Your task to perform on an android device: turn on translation in the chrome app Image 0: 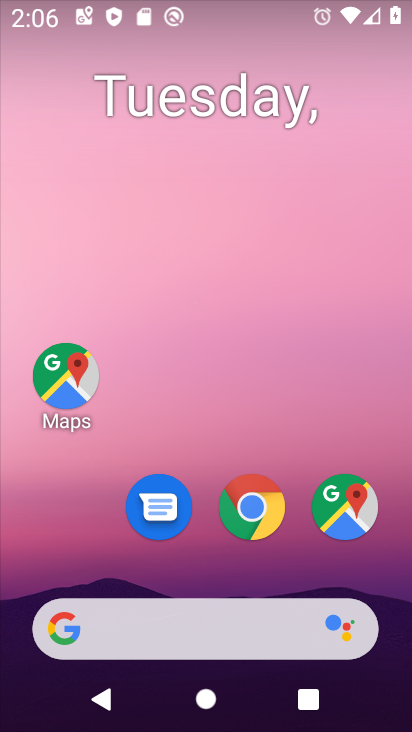
Step 0: click (261, 503)
Your task to perform on an android device: turn on translation in the chrome app Image 1: 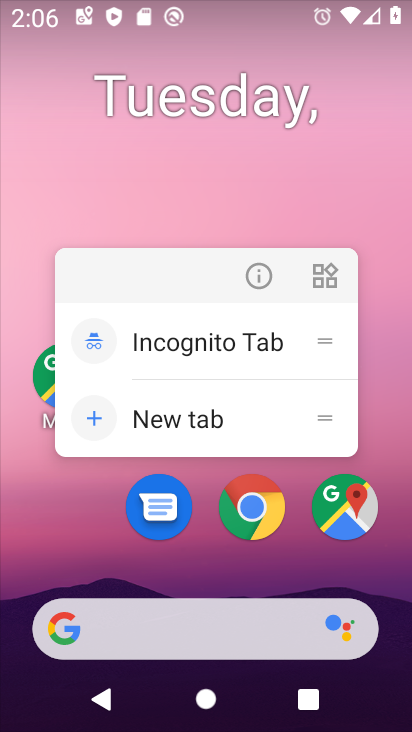
Step 1: click (257, 493)
Your task to perform on an android device: turn on translation in the chrome app Image 2: 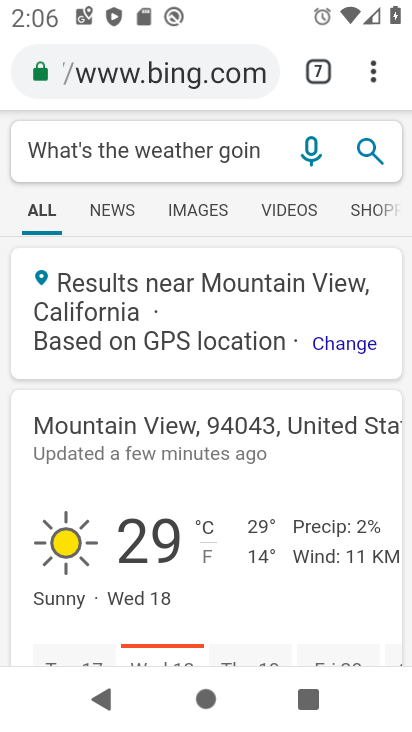
Step 2: click (368, 63)
Your task to perform on an android device: turn on translation in the chrome app Image 3: 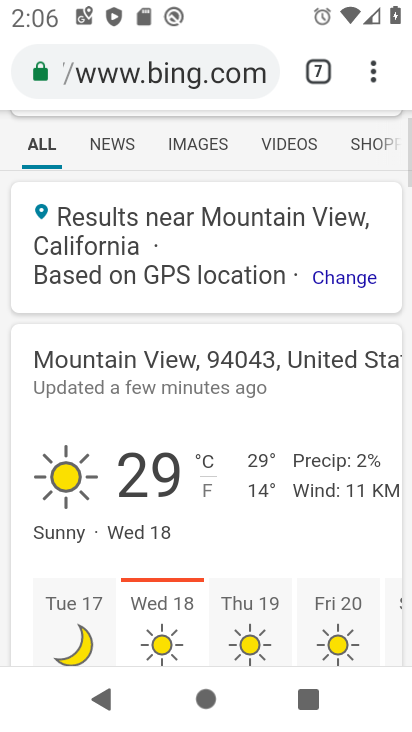
Step 3: click (369, 64)
Your task to perform on an android device: turn on translation in the chrome app Image 4: 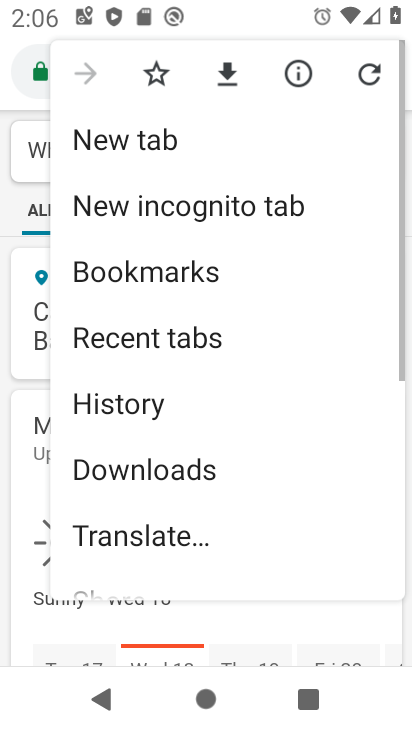
Step 4: drag from (218, 563) to (233, 261)
Your task to perform on an android device: turn on translation in the chrome app Image 5: 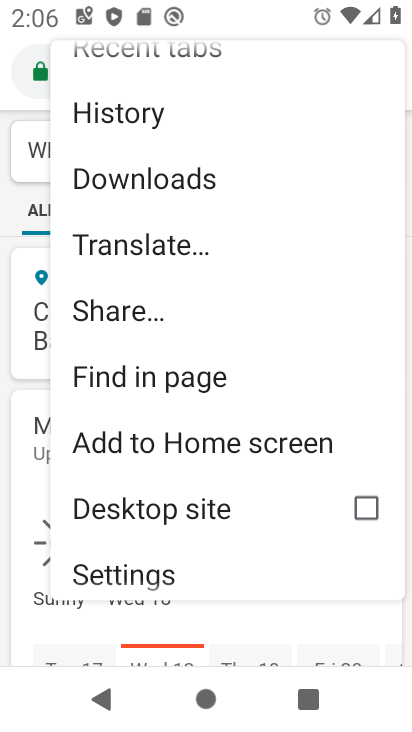
Step 5: drag from (194, 542) to (215, 370)
Your task to perform on an android device: turn on translation in the chrome app Image 6: 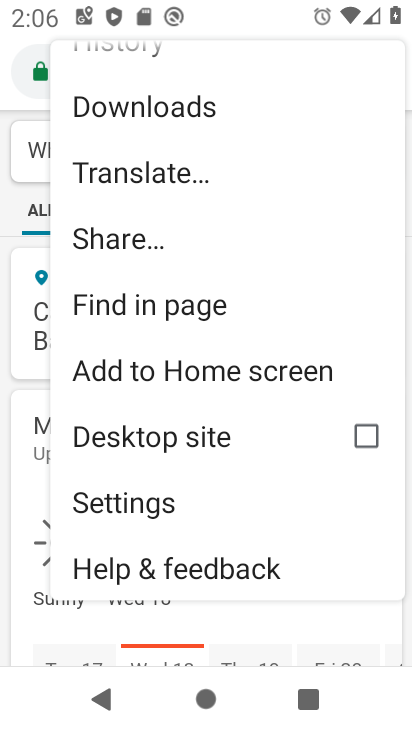
Step 6: click (170, 513)
Your task to perform on an android device: turn on translation in the chrome app Image 7: 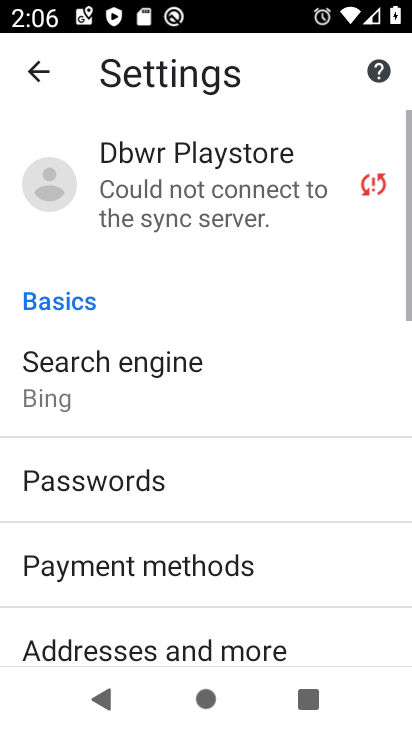
Step 7: drag from (206, 530) to (202, 176)
Your task to perform on an android device: turn on translation in the chrome app Image 8: 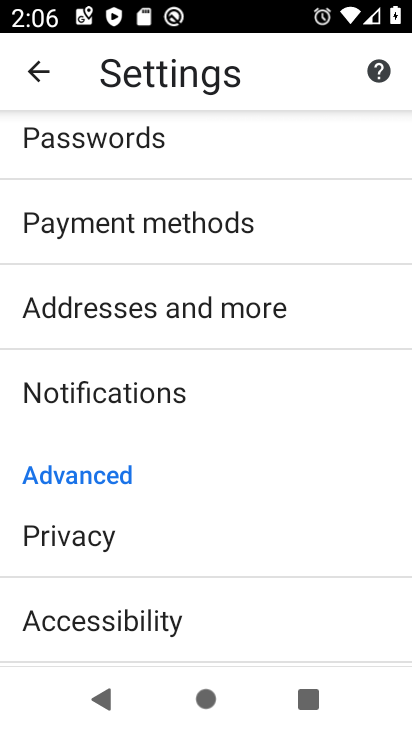
Step 8: drag from (121, 614) to (192, 274)
Your task to perform on an android device: turn on translation in the chrome app Image 9: 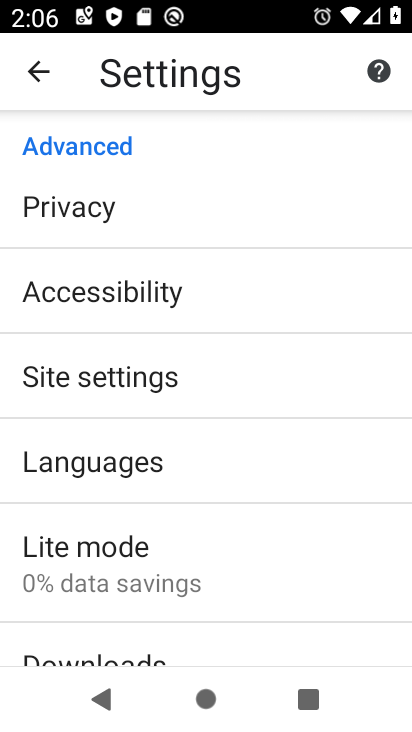
Step 9: click (159, 467)
Your task to perform on an android device: turn on translation in the chrome app Image 10: 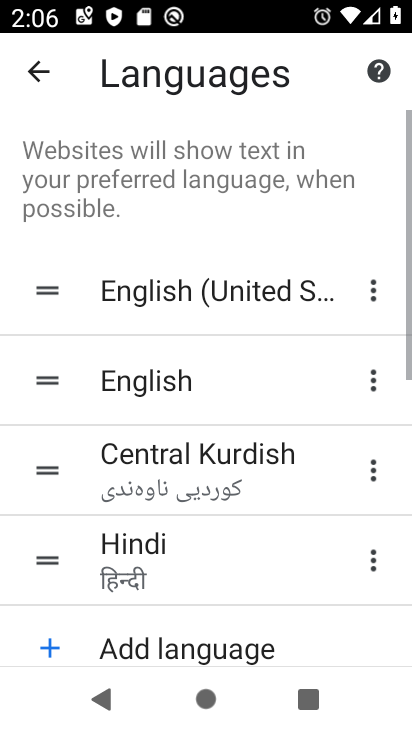
Step 10: task complete